Your task to perform on an android device: Open maps Image 0: 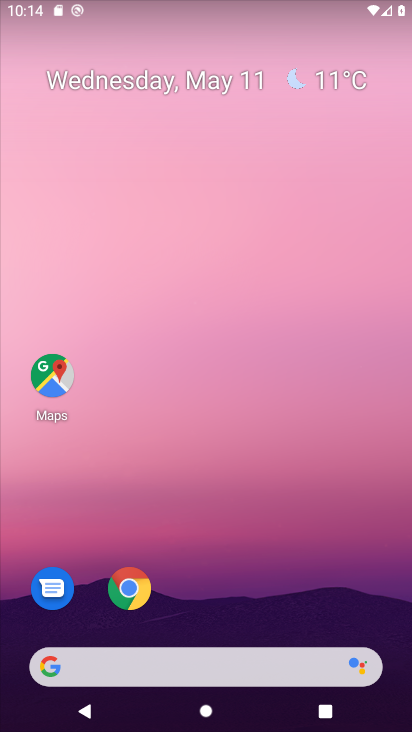
Step 0: click (67, 380)
Your task to perform on an android device: Open maps Image 1: 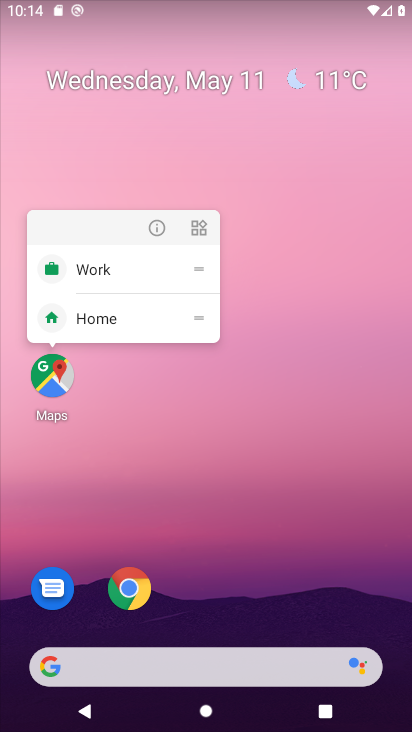
Step 1: click (45, 376)
Your task to perform on an android device: Open maps Image 2: 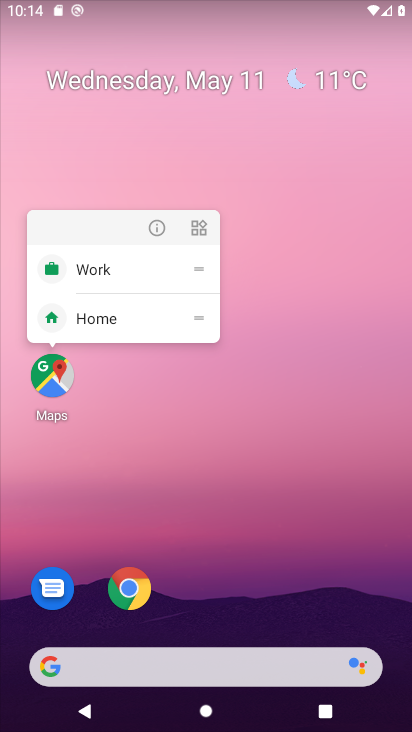
Step 2: click (45, 376)
Your task to perform on an android device: Open maps Image 3: 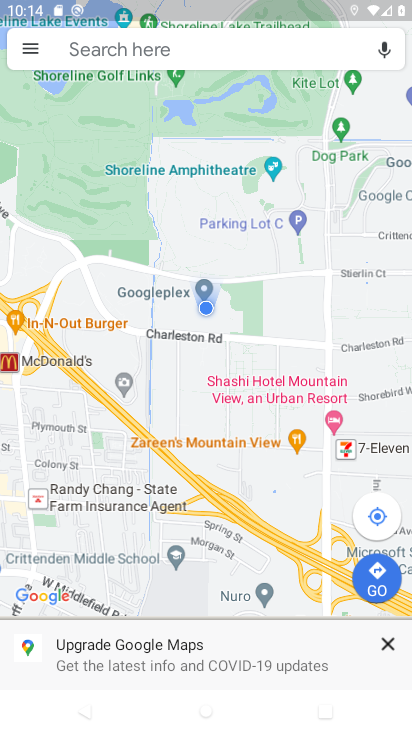
Step 3: task complete